Your task to perform on an android device: Show the shopping cart on target.com. Search for "usb-c to usb-b" on target.com, select the first entry, and add it to the cart. Image 0: 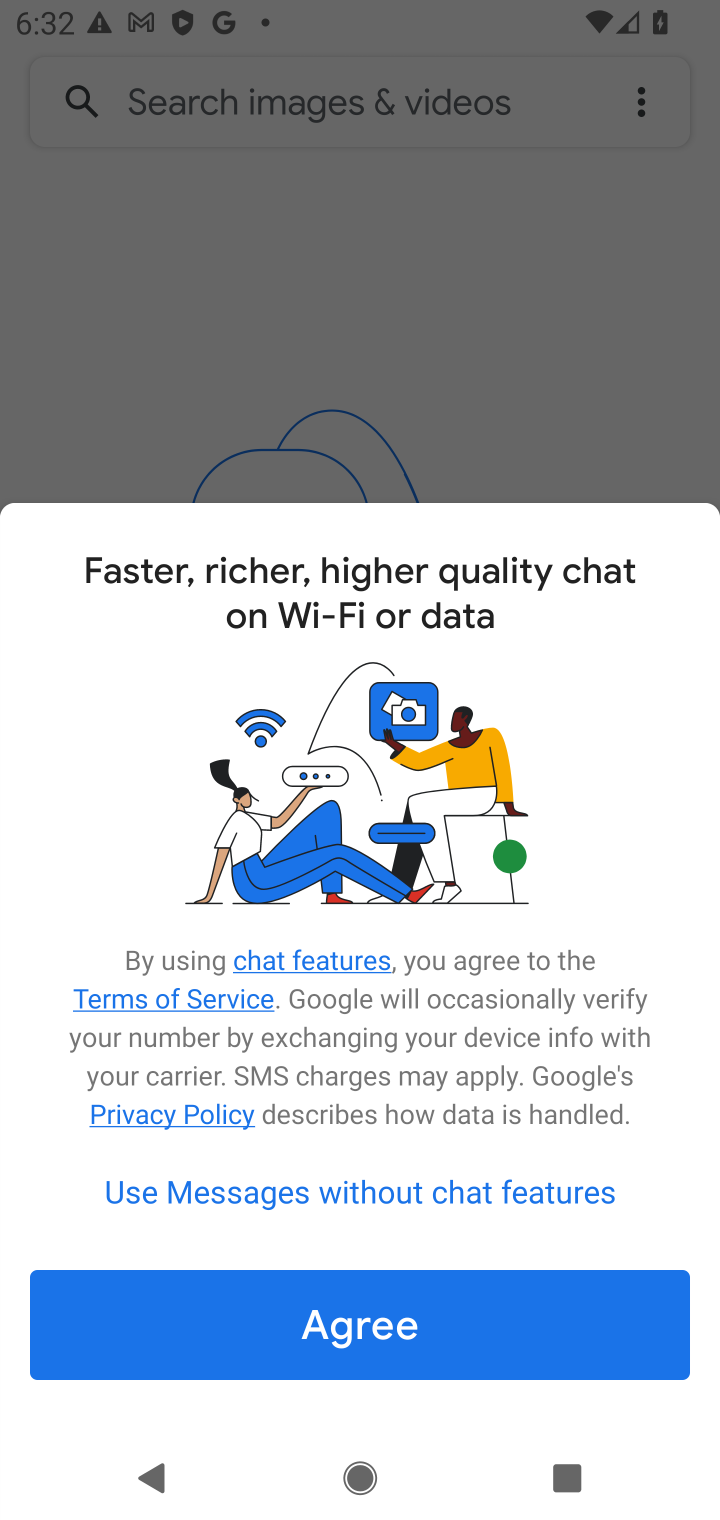
Step 0: press home button
Your task to perform on an android device: Show the shopping cart on target.com. Search for "usb-c to usb-b" on target.com, select the first entry, and add it to the cart. Image 1: 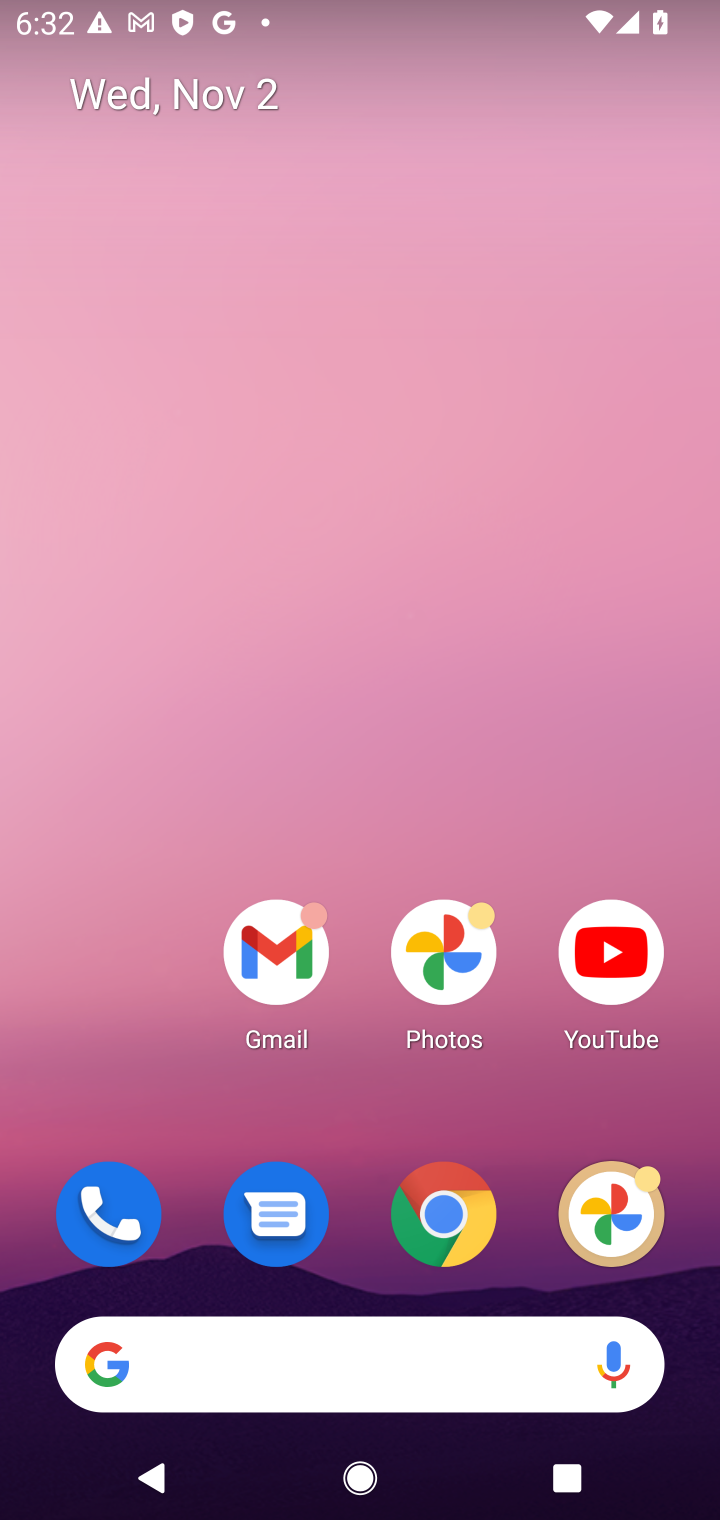
Step 1: click (449, 1211)
Your task to perform on an android device: Show the shopping cart on target.com. Search for "usb-c to usb-b" on target.com, select the first entry, and add it to the cart. Image 2: 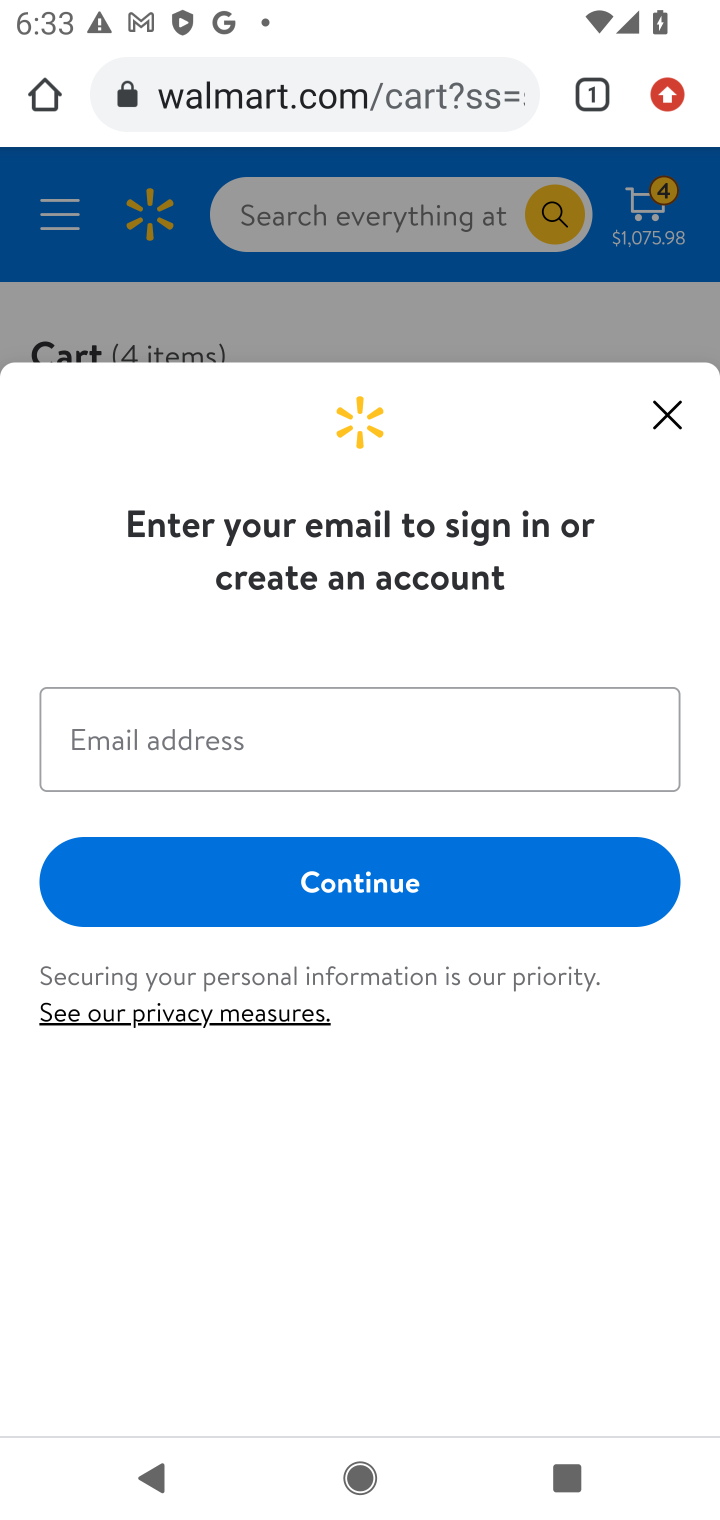
Step 2: click (352, 100)
Your task to perform on an android device: Show the shopping cart on target.com. Search for "usb-c to usb-b" on target.com, select the first entry, and add it to the cart. Image 3: 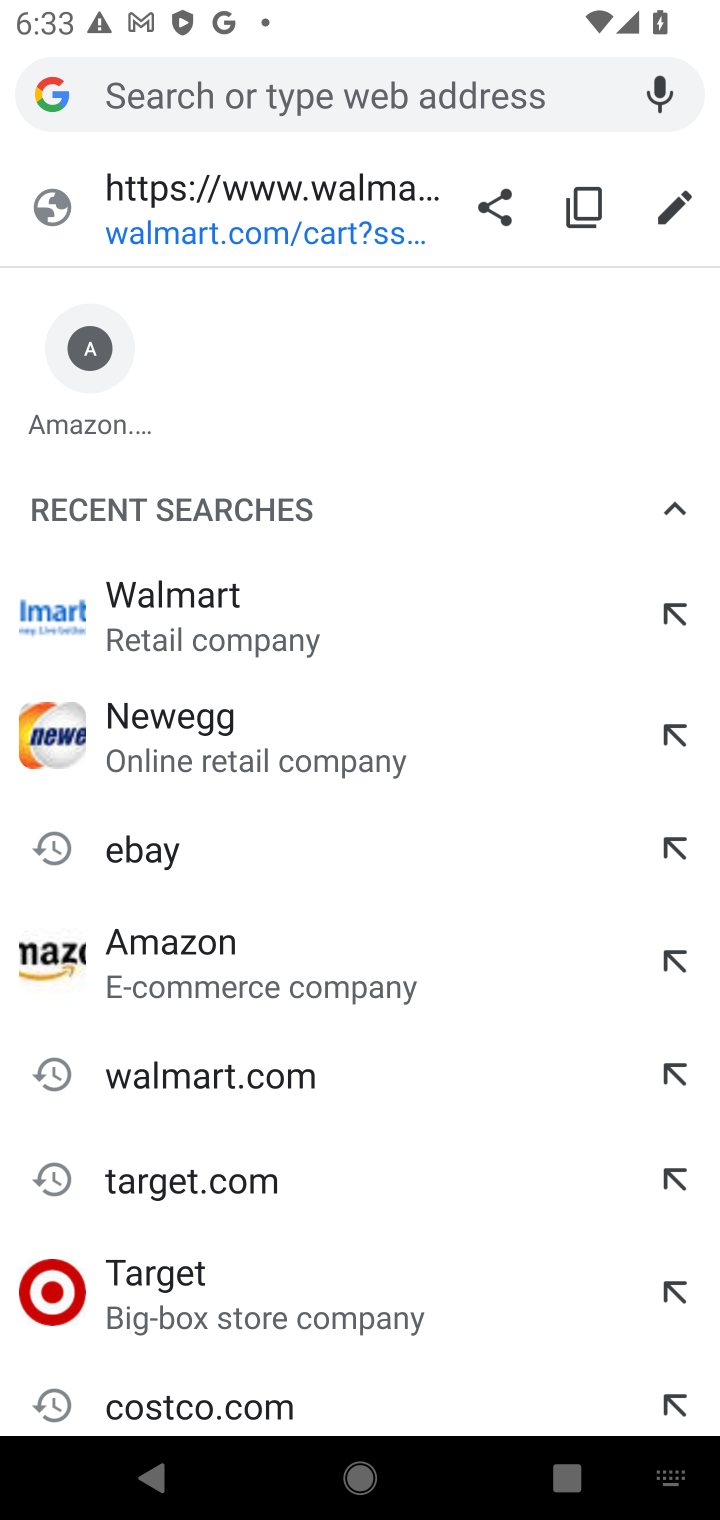
Step 3: type "target.com"
Your task to perform on an android device: Show the shopping cart on target.com. Search for "usb-c to usb-b" on target.com, select the first entry, and add it to the cart. Image 4: 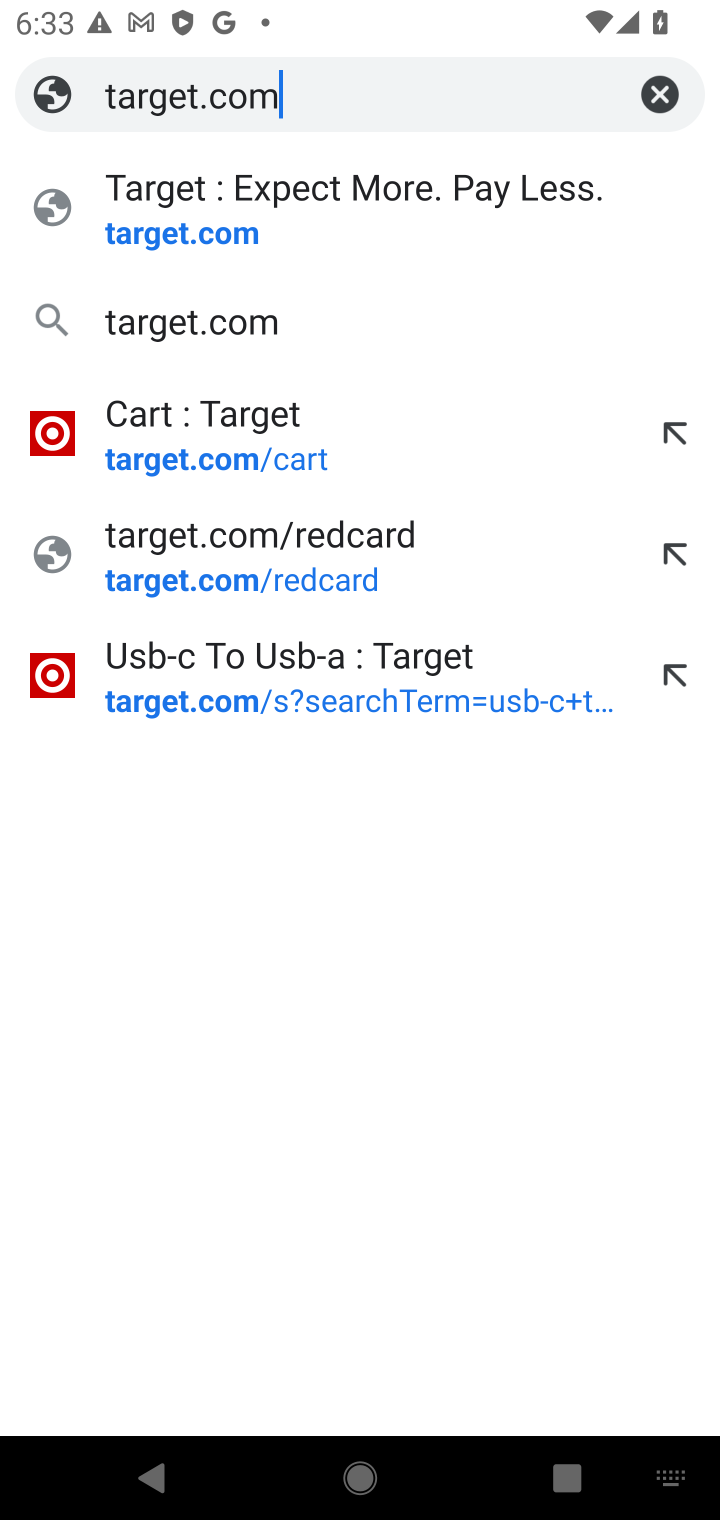
Step 4: click (246, 330)
Your task to perform on an android device: Show the shopping cart on target.com. Search for "usb-c to usb-b" on target.com, select the first entry, and add it to the cart. Image 5: 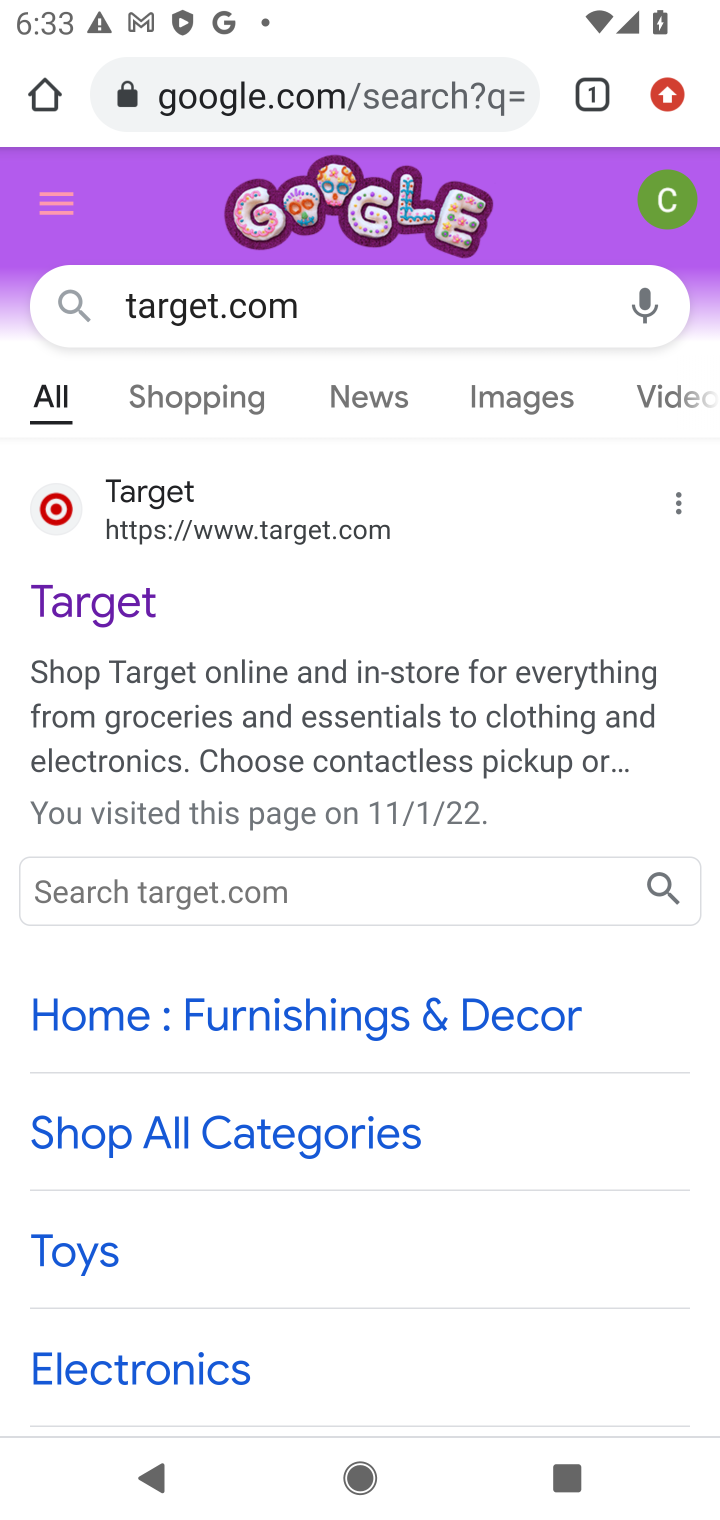
Step 5: click (231, 585)
Your task to perform on an android device: Show the shopping cart on target.com. Search for "usb-c to usb-b" on target.com, select the first entry, and add it to the cart. Image 6: 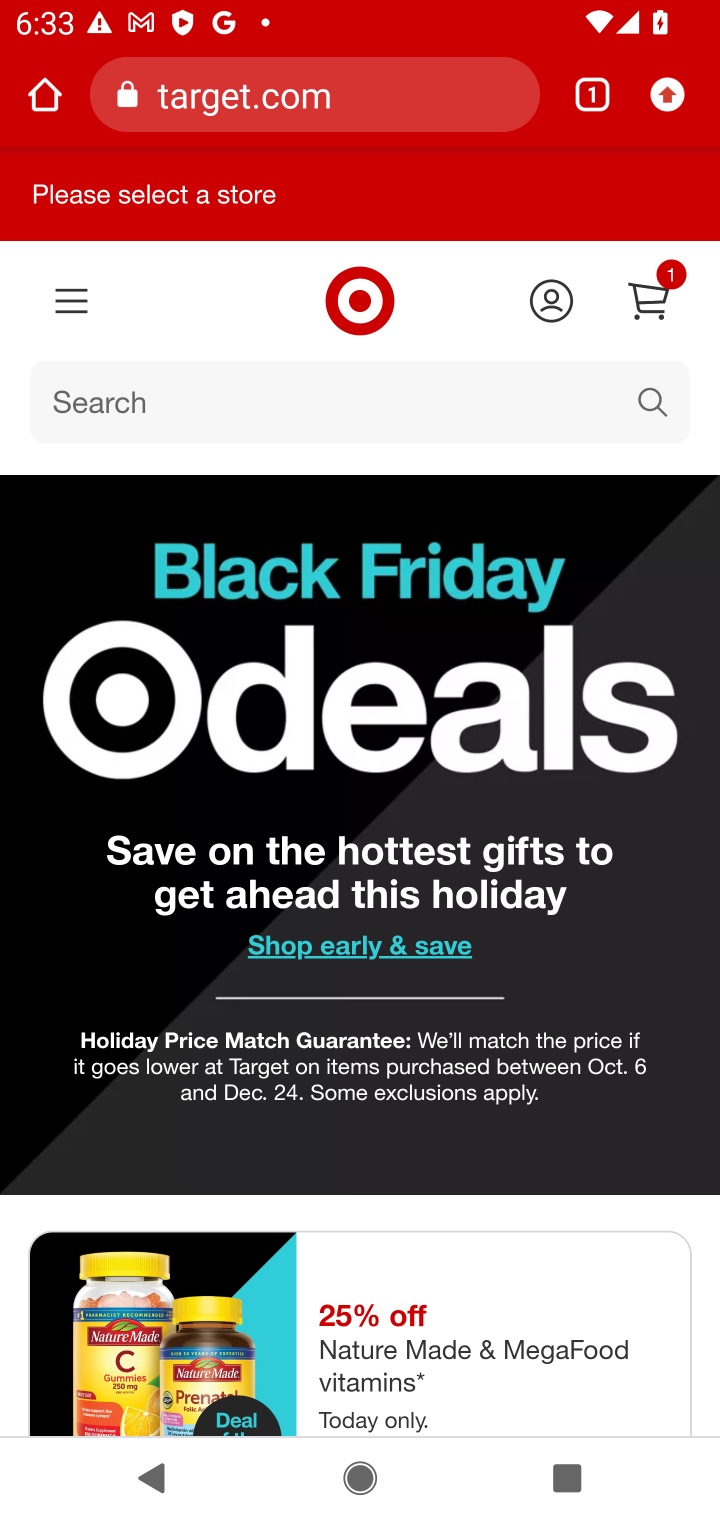
Step 6: click (656, 305)
Your task to perform on an android device: Show the shopping cart on target.com. Search for "usb-c to usb-b" on target.com, select the first entry, and add it to the cart. Image 7: 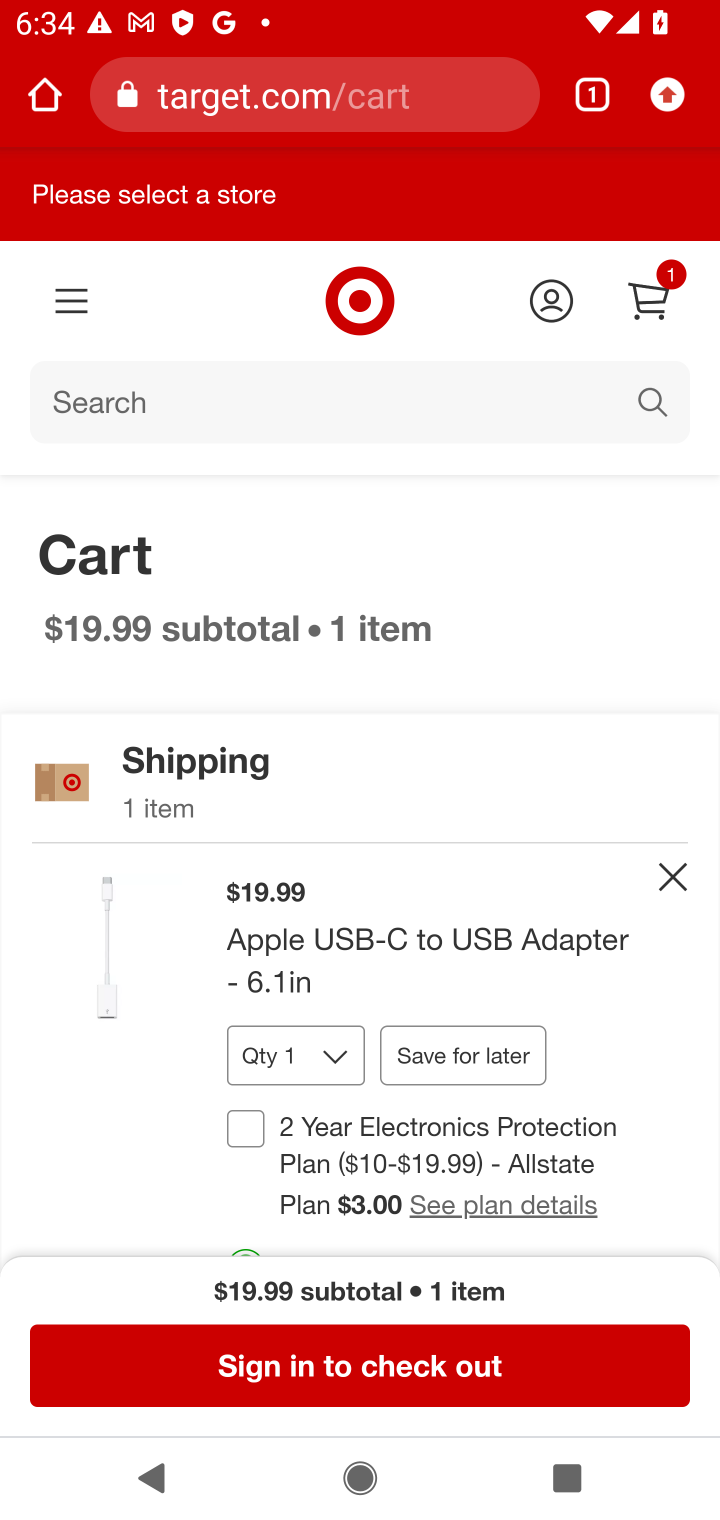
Step 7: click (376, 404)
Your task to perform on an android device: Show the shopping cart on target.com. Search for "usb-c to usb-b" on target.com, select the first entry, and add it to the cart. Image 8: 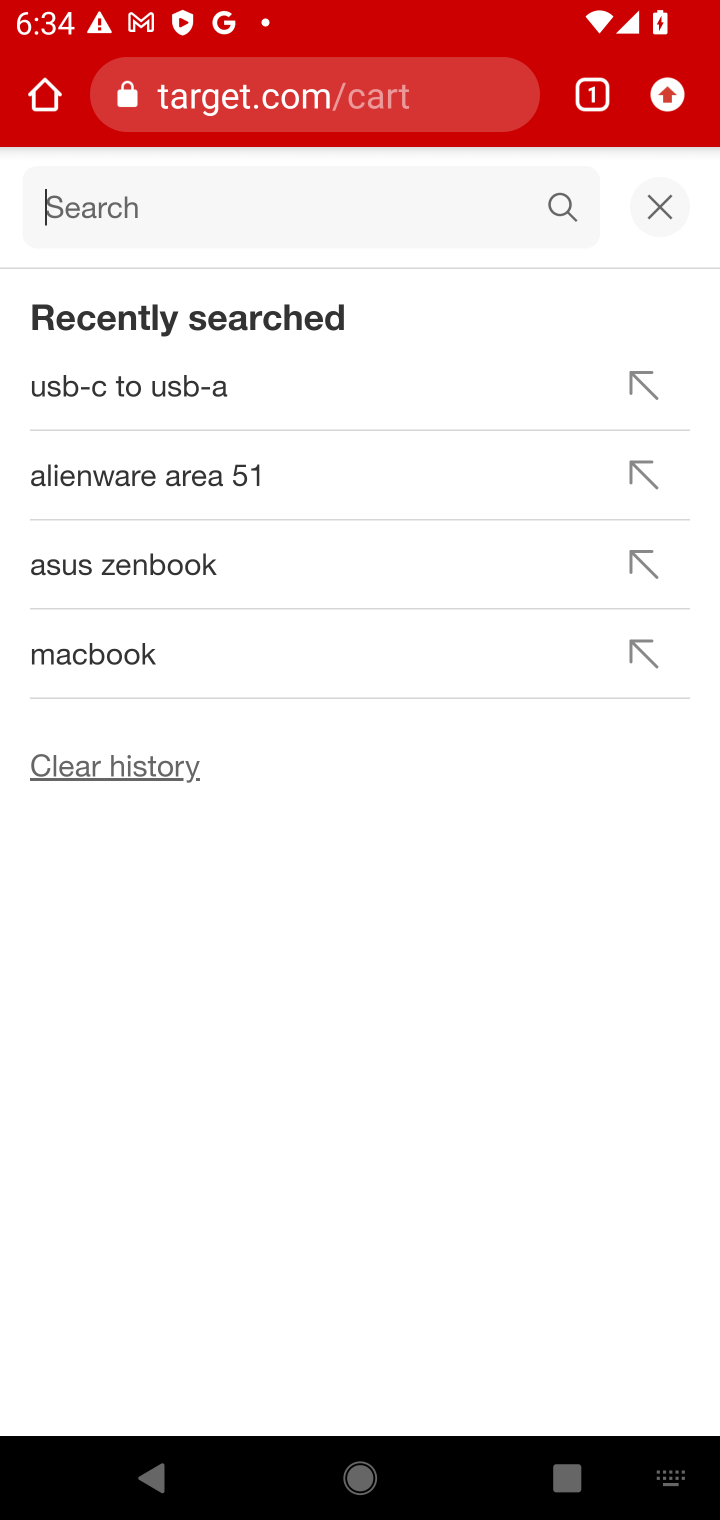
Step 8: type "usb-c to usb-b"
Your task to perform on an android device: Show the shopping cart on target.com. Search for "usb-c to usb-b" on target.com, select the first entry, and add it to the cart. Image 9: 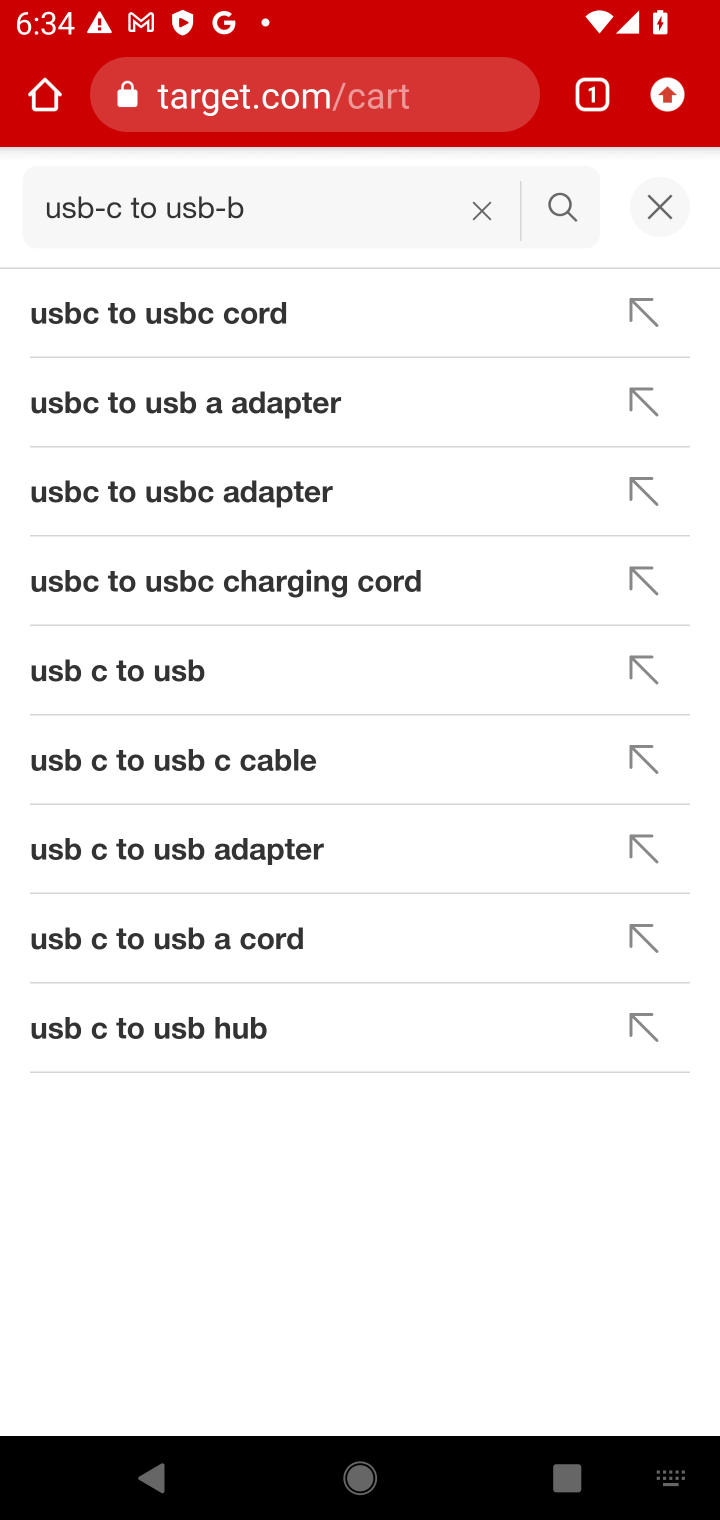
Step 9: click (562, 210)
Your task to perform on an android device: Show the shopping cart on target.com. Search for "usb-c to usb-b" on target.com, select the first entry, and add it to the cart. Image 10: 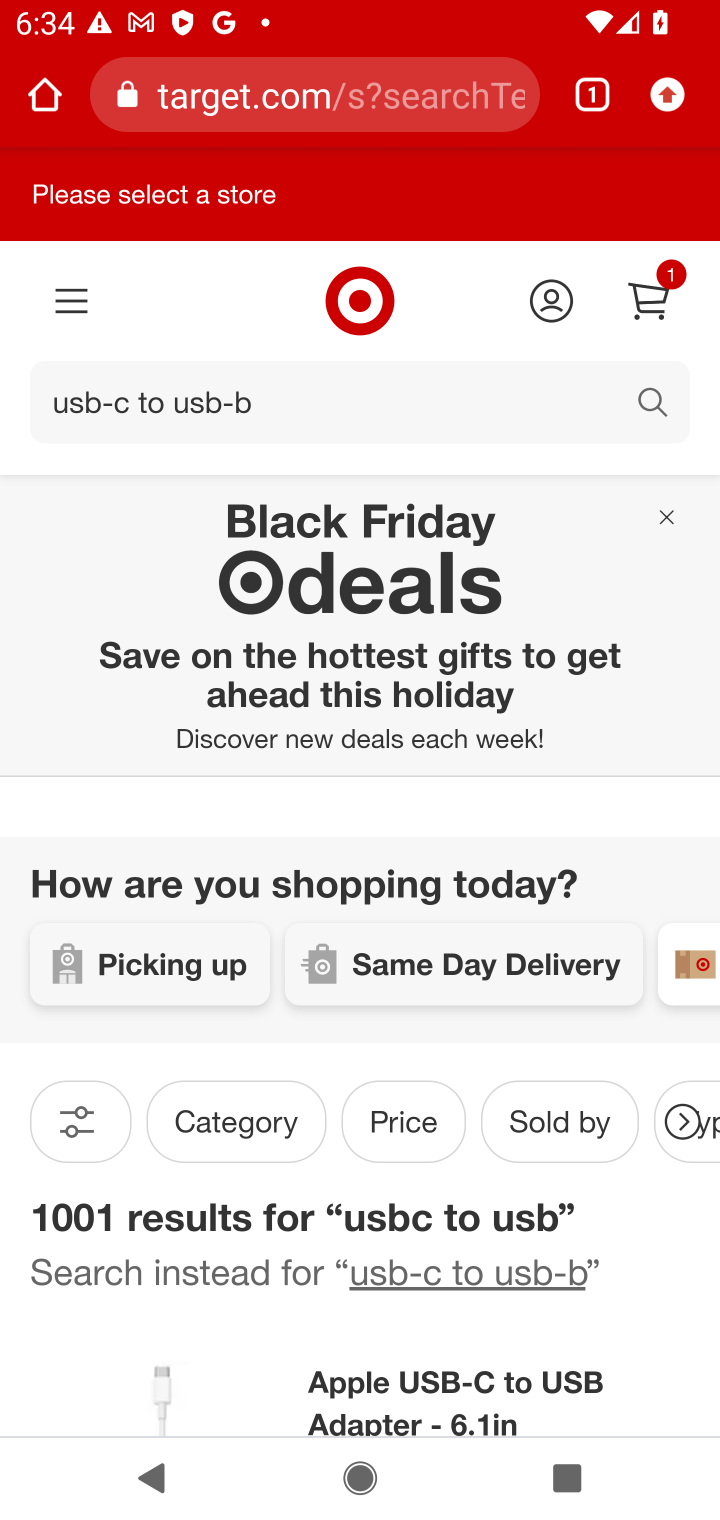
Step 10: drag from (452, 1307) to (495, 631)
Your task to perform on an android device: Show the shopping cart on target.com. Search for "usb-c to usb-b" on target.com, select the first entry, and add it to the cart. Image 11: 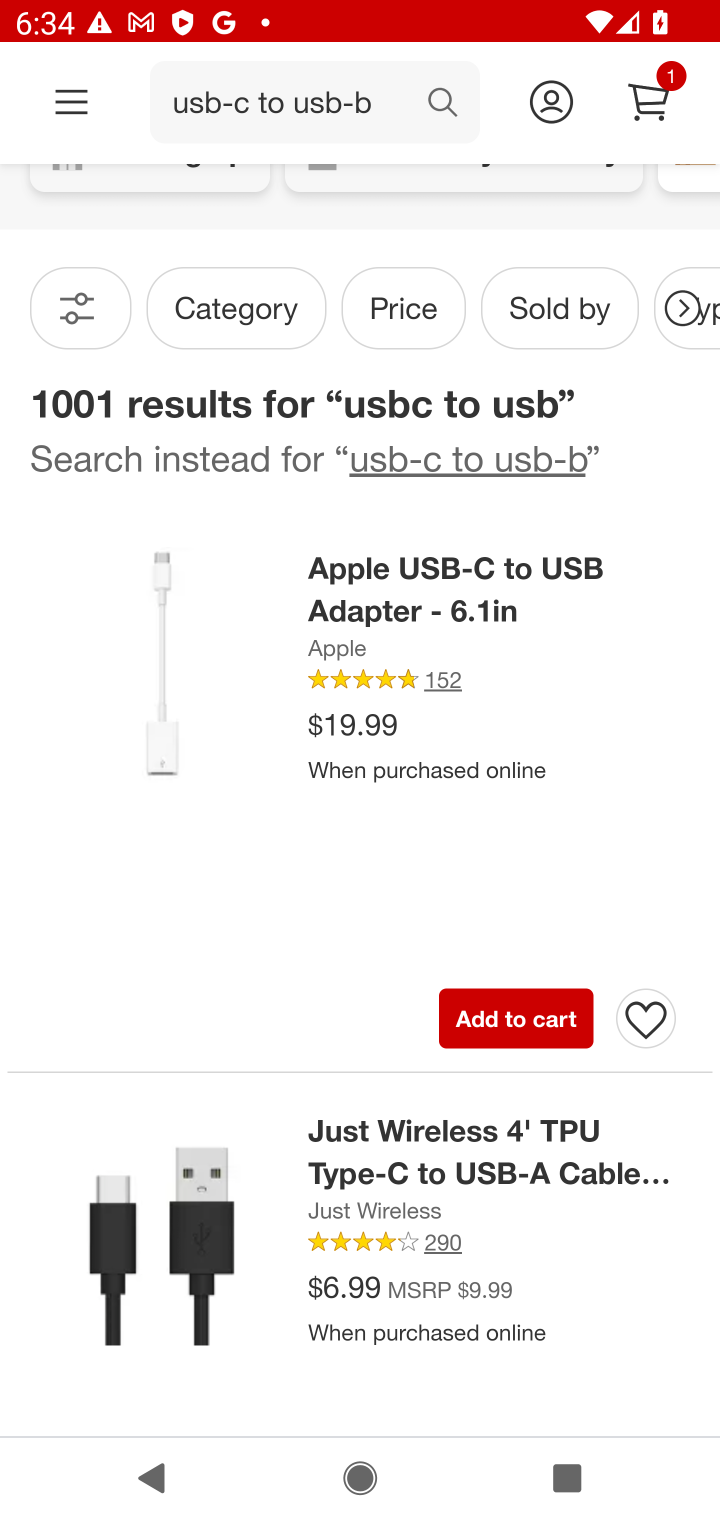
Step 11: click (449, 593)
Your task to perform on an android device: Show the shopping cart on target.com. Search for "usb-c to usb-b" on target.com, select the first entry, and add it to the cart. Image 12: 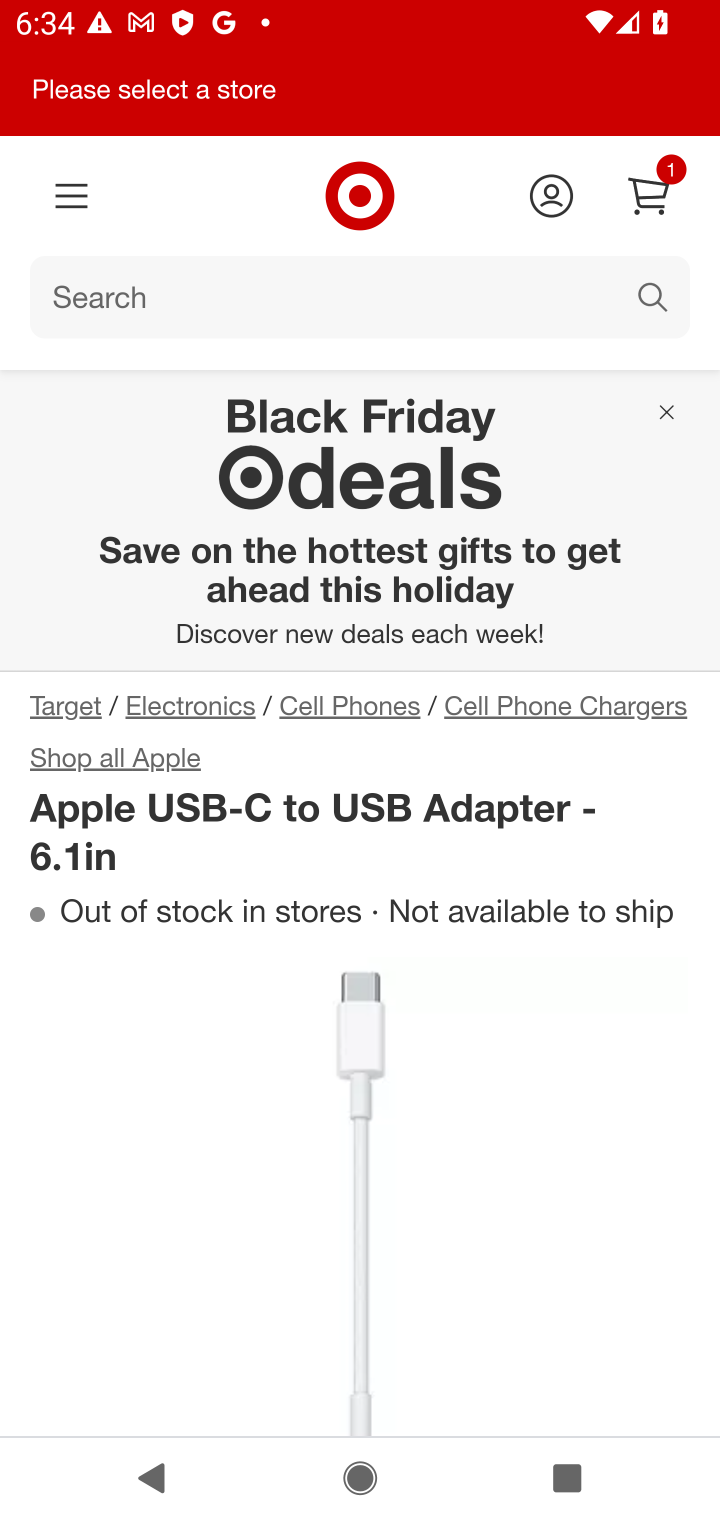
Step 12: drag from (489, 1218) to (564, 456)
Your task to perform on an android device: Show the shopping cart on target.com. Search for "usb-c to usb-b" on target.com, select the first entry, and add it to the cart. Image 13: 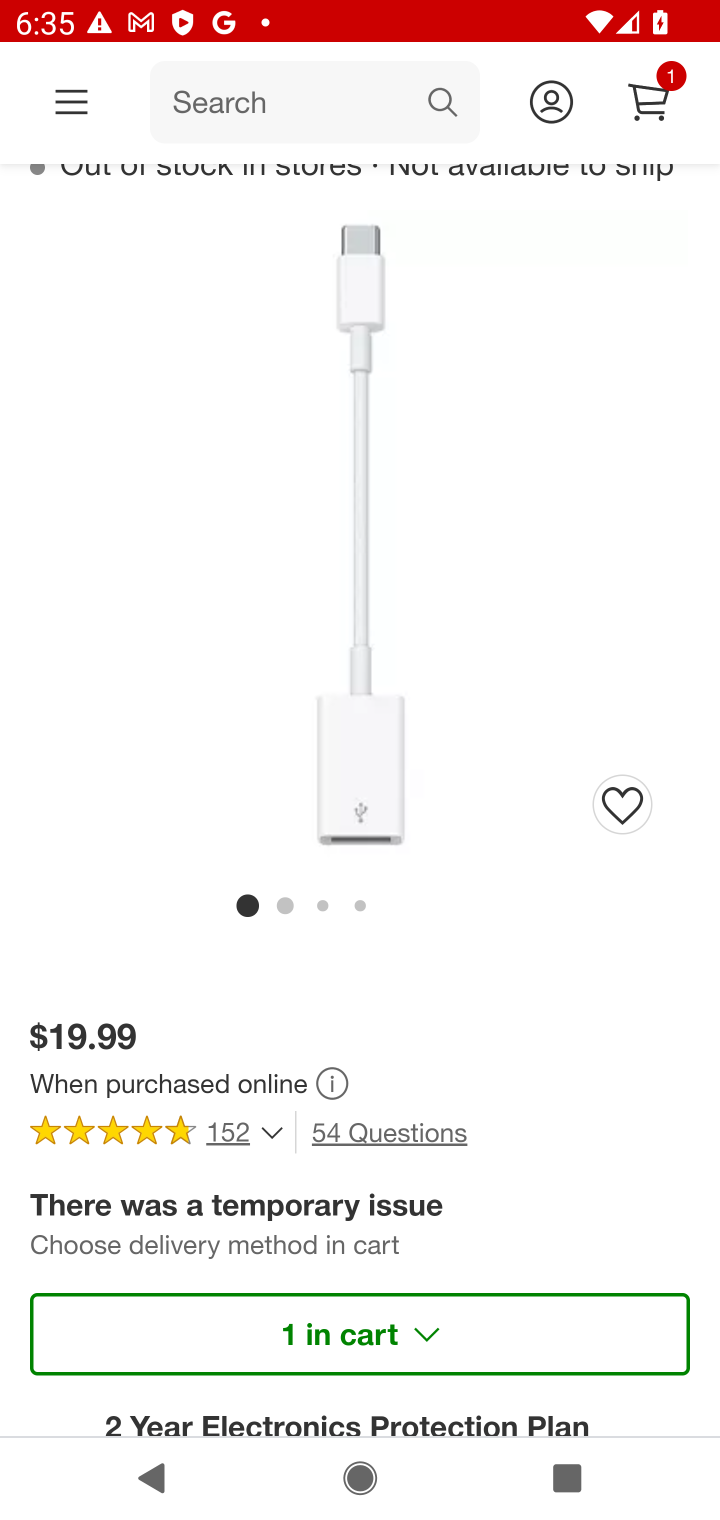
Step 13: click (652, 98)
Your task to perform on an android device: Show the shopping cart on target.com. Search for "usb-c to usb-b" on target.com, select the first entry, and add it to the cart. Image 14: 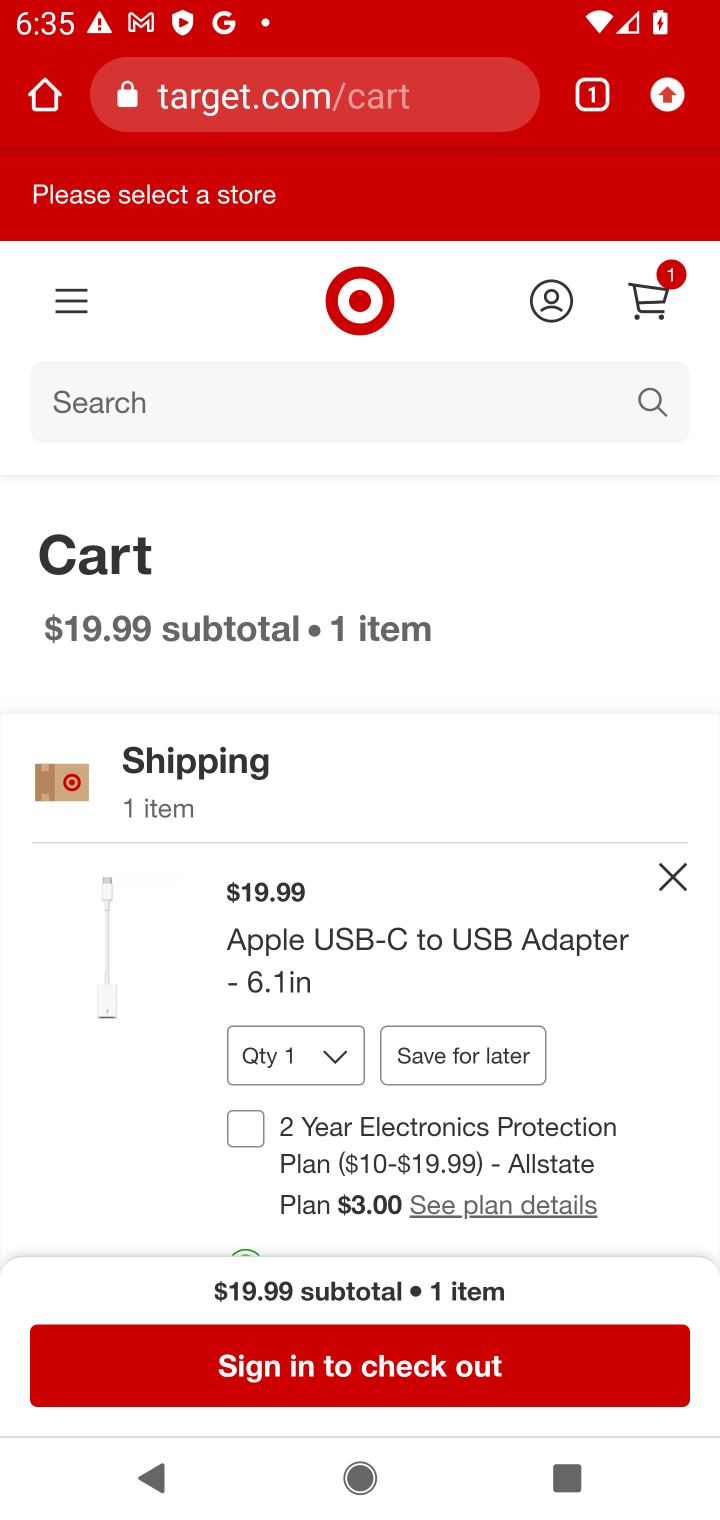
Step 14: task complete